Your task to perform on an android device: Turn off the flashlight Image 0: 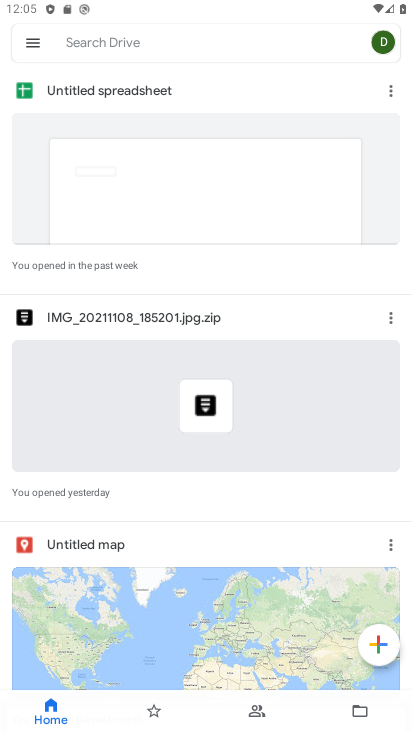
Step 0: press home button
Your task to perform on an android device: Turn off the flashlight Image 1: 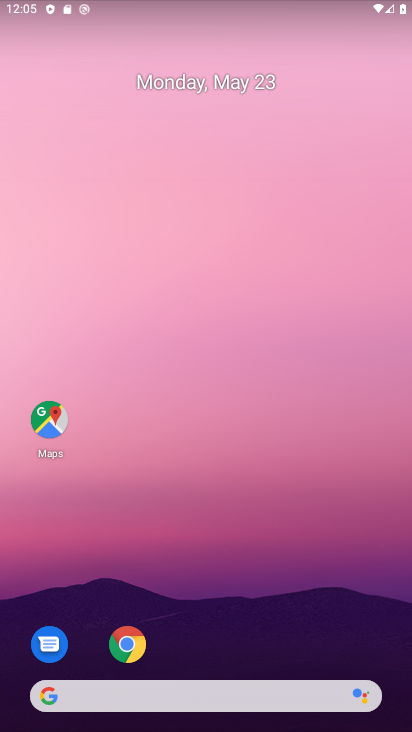
Step 1: drag from (231, 596) to (250, 8)
Your task to perform on an android device: Turn off the flashlight Image 2: 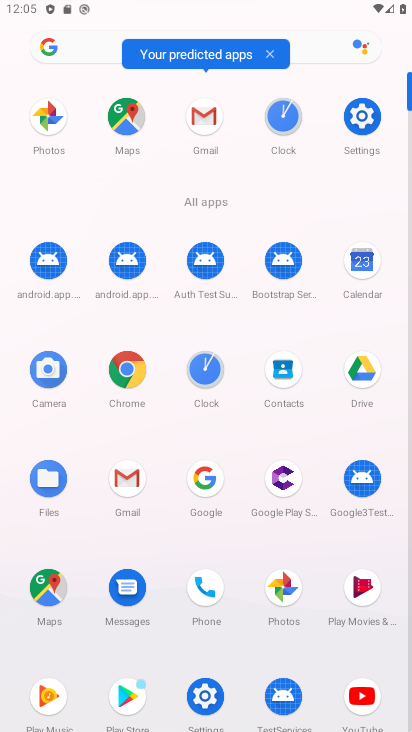
Step 2: click (371, 131)
Your task to perform on an android device: Turn off the flashlight Image 3: 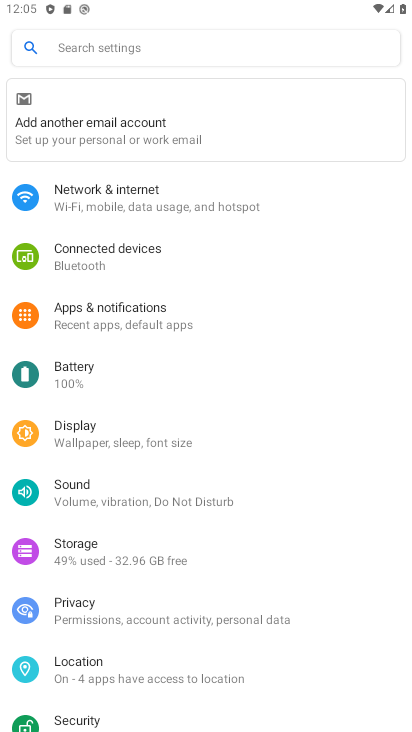
Step 3: click (161, 325)
Your task to perform on an android device: Turn off the flashlight Image 4: 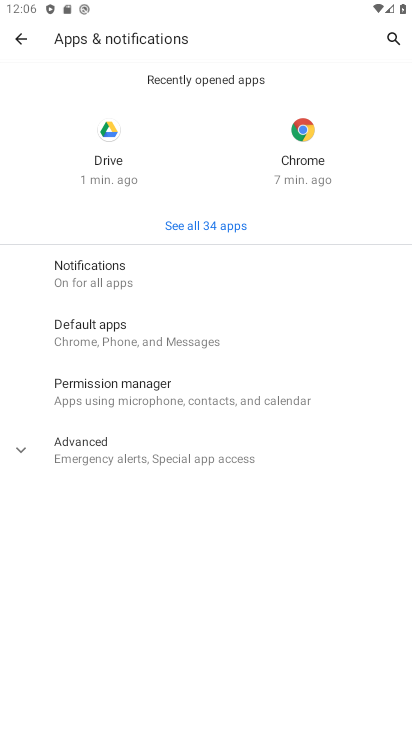
Step 4: click (87, 454)
Your task to perform on an android device: Turn off the flashlight Image 5: 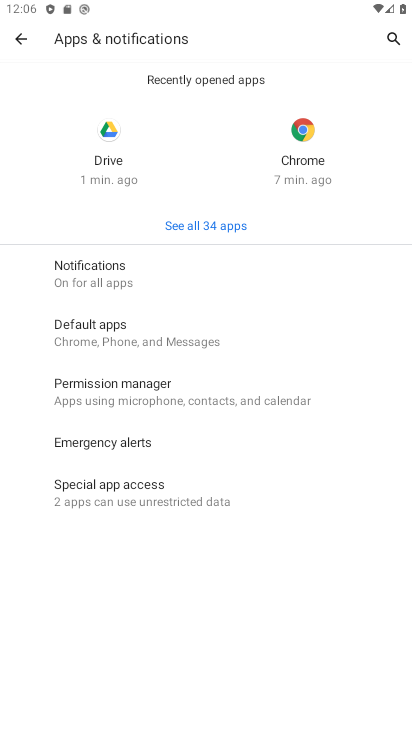
Step 5: click (110, 501)
Your task to perform on an android device: Turn off the flashlight Image 6: 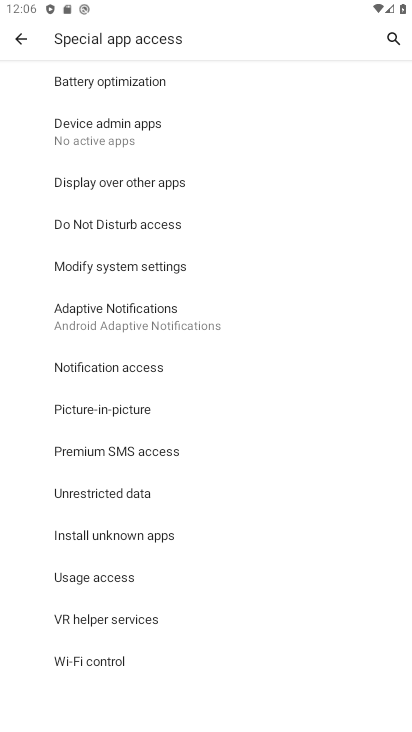
Step 6: task complete